Your task to perform on an android device: search for starred emails in the gmail app Image 0: 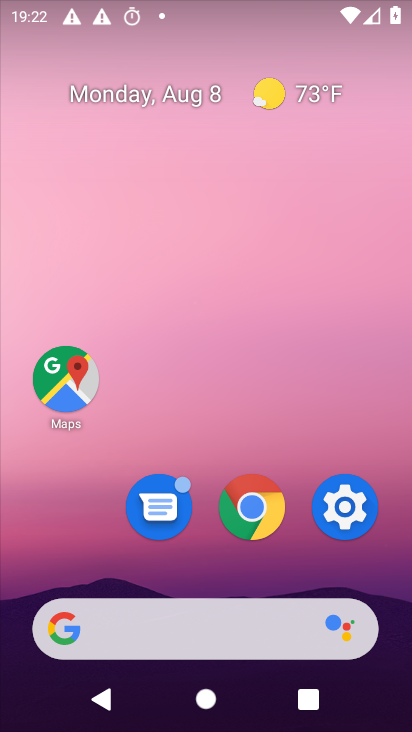
Step 0: drag from (278, 630) to (181, 91)
Your task to perform on an android device: search for starred emails in the gmail app Image 1: 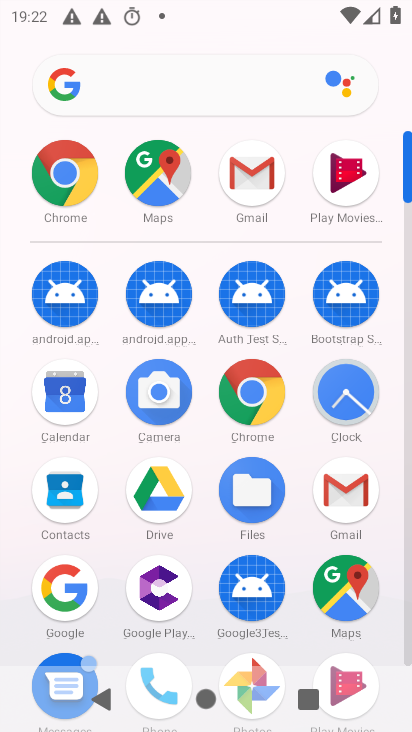
Step 1: click (254, 201)
Your task to perform on an android device: search for starred emails in the gmail app Image 2: 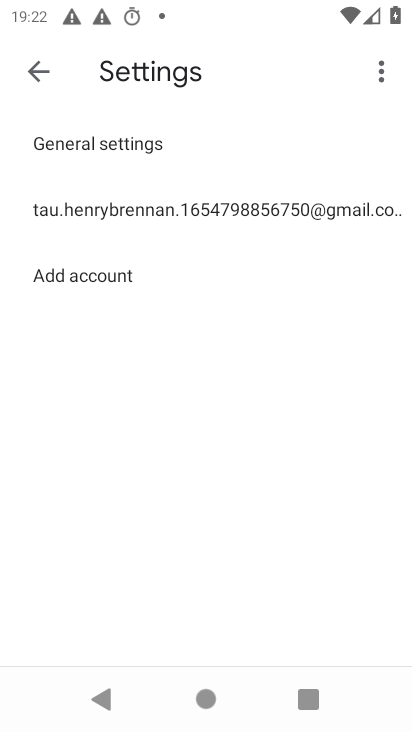
Step 2: click (38, 66)
Your task to perform on an android device: search for starred emails in the gmail app Image 3: 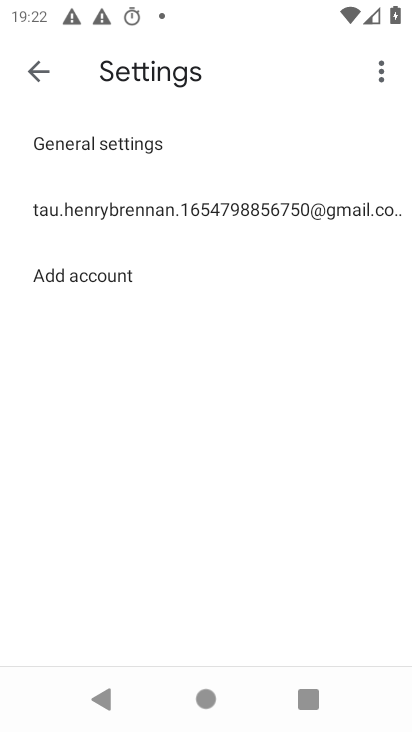
Step 3: click (24, 61)
Your task to perform on an android device: search for starred emails in the gmail app Image 4: 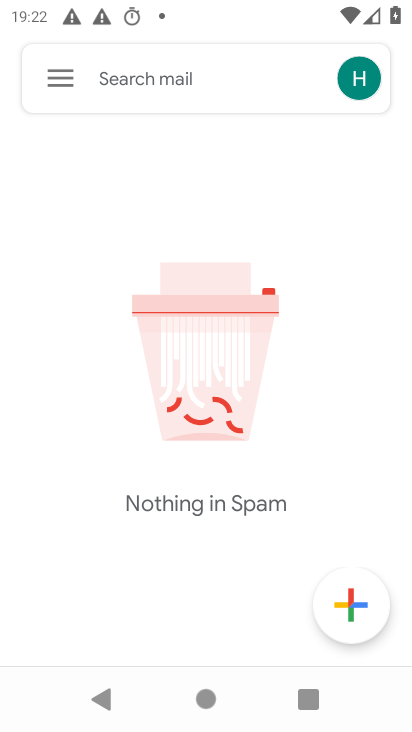
Step 4: click (59, 78)
Your task to perform on an android device: search for starred emails in the gmail app Image 5: 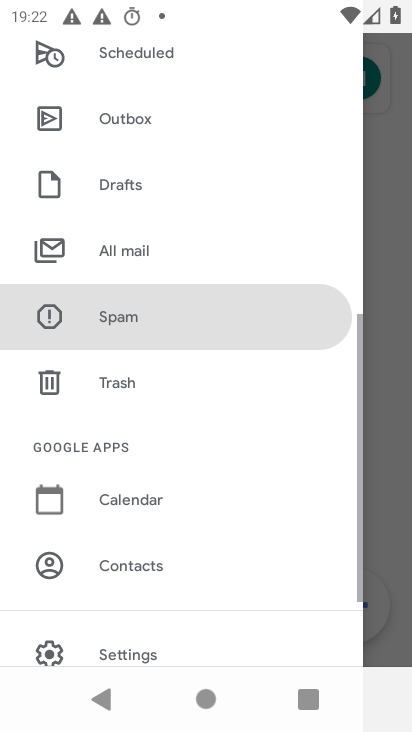
Step 5: drag from (74, 98) to (117, 353)
Your task to perform on an android device: search for starred emails in the gmail app Image 6: 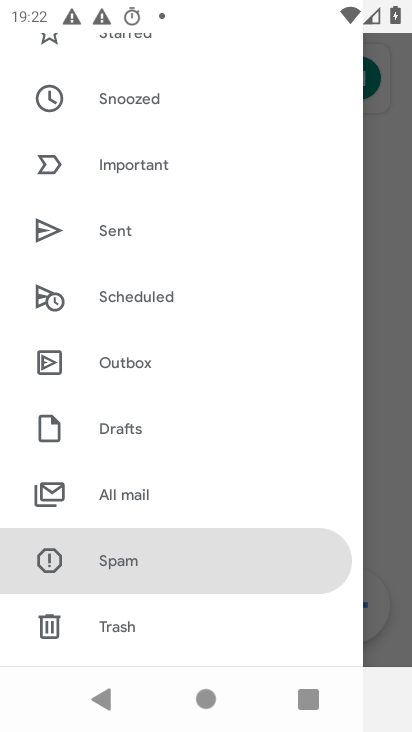
Step 6: click (126, 53)
Your task to perform on an android device: search for starred emails in the gmail app Image 7: 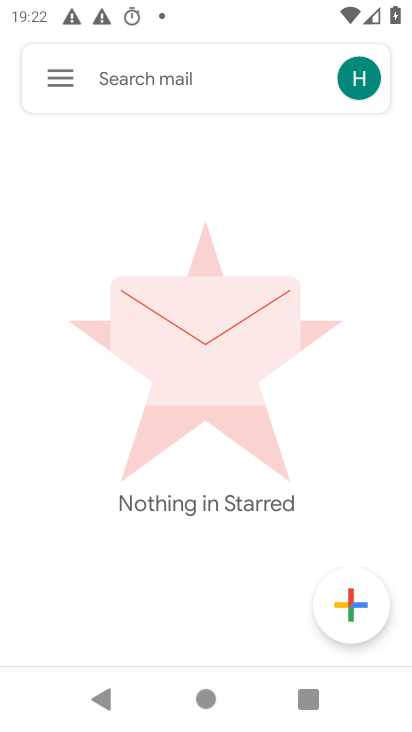
Step 7: task complete